Your task to perform on an android device: visit the assistant section in the google photos Image 0: 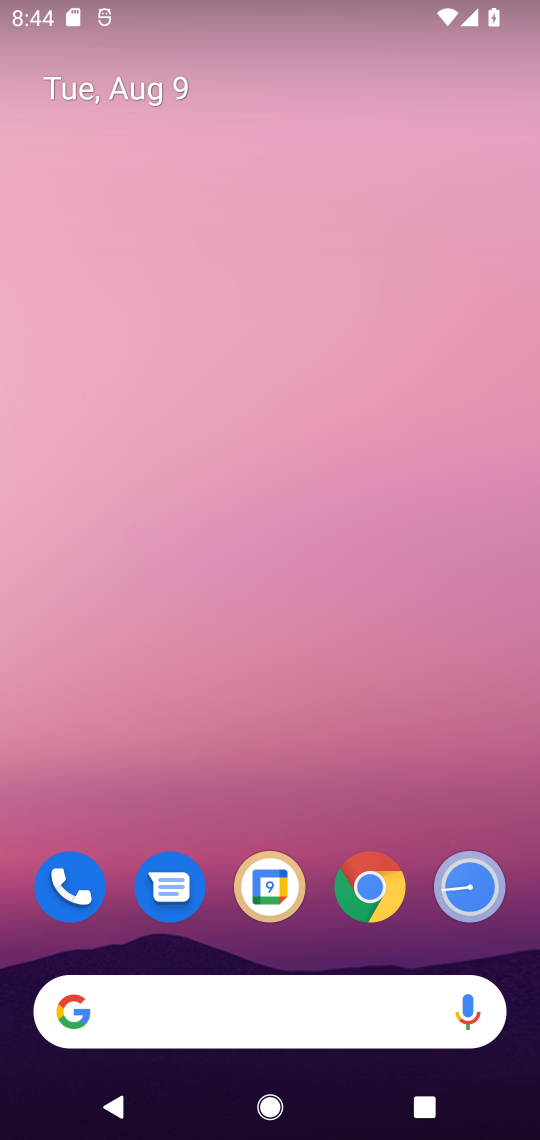
Step 0: drag from (317, 796) to (313, 312)
Your task to perform on an android device: visit the assistant section in the google photos Image 1: 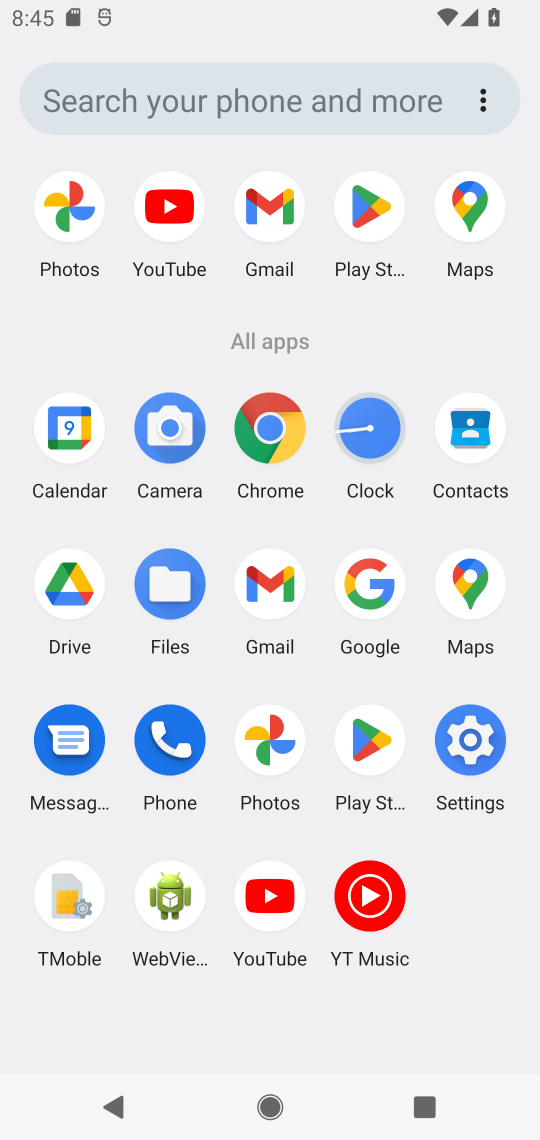
Step 1: click (45, 219)
Your task to perform on an android device: visit the assistant section in the google photos Image 2: 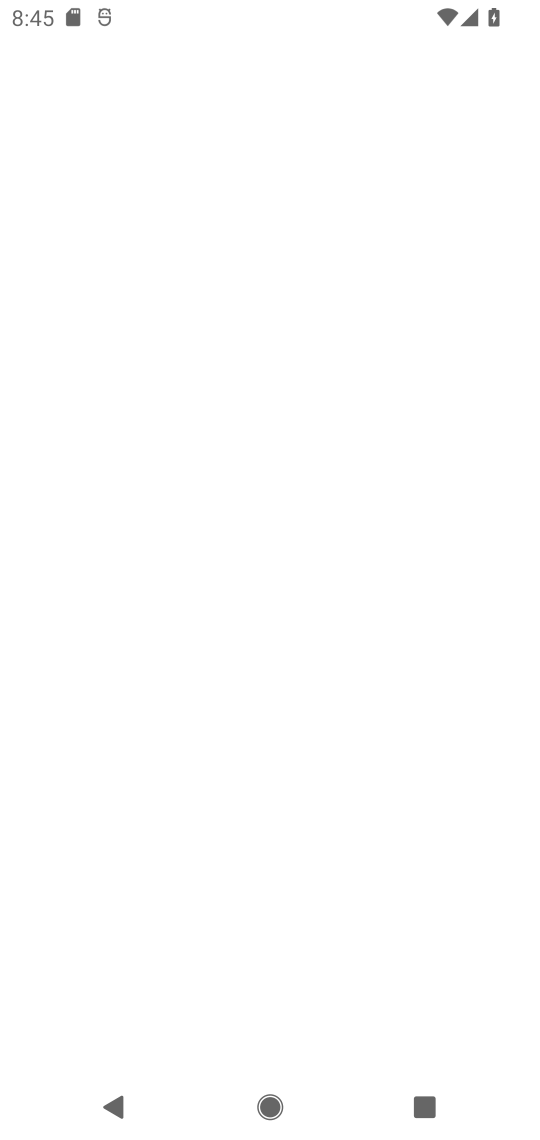
Step 2: press home button
Your task to perform on an android device: visit the assistant section in the google photos Image 3: 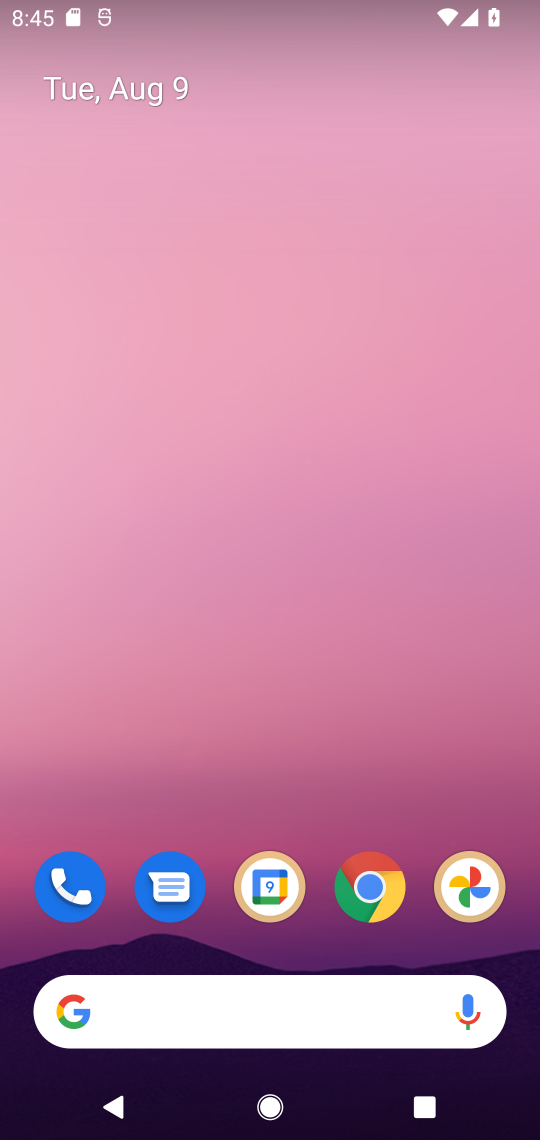
Step 3: click (427, 905)
Your task to perform on an android device: visit the assistant section in the google photos Image 4: 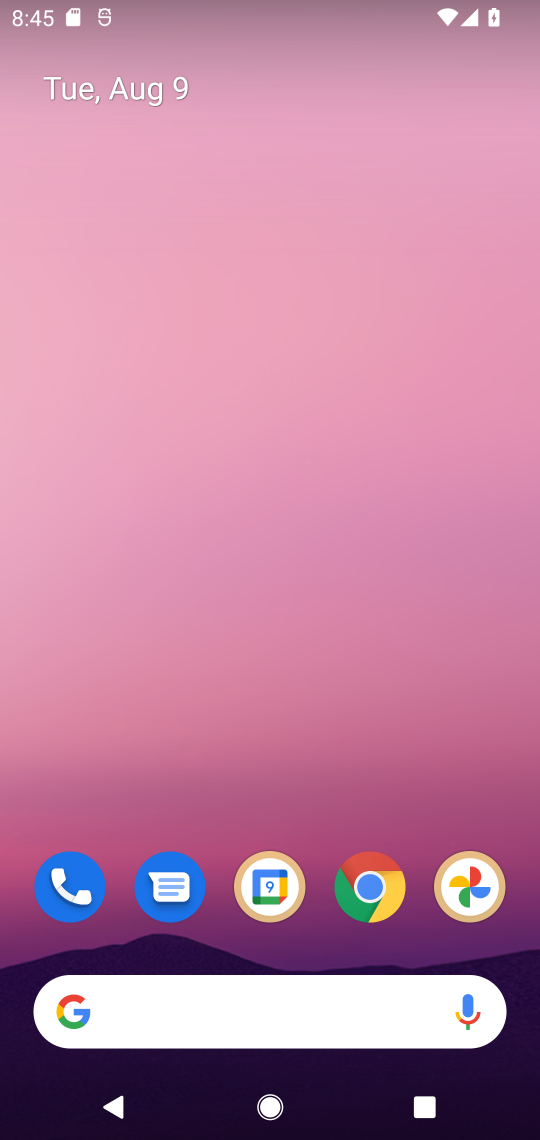
Step 4: click (459, 868)
Your task to perform on an android device: visit the assistant section in the google photos Image 5: 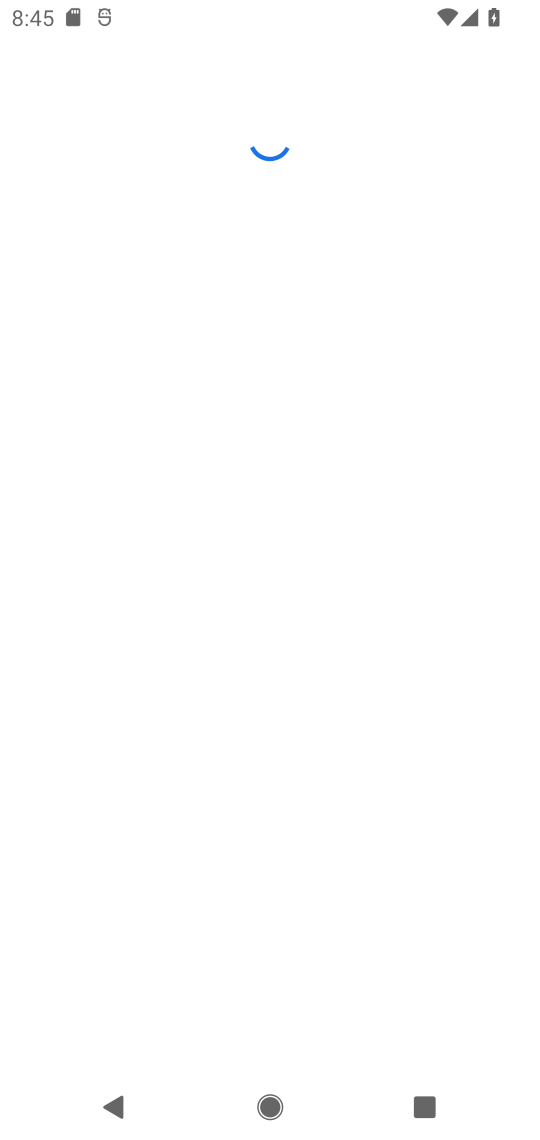
Step 5: task complete